Your task to perform on an android device: see tabs open on other devices in the chrome app Image 0: 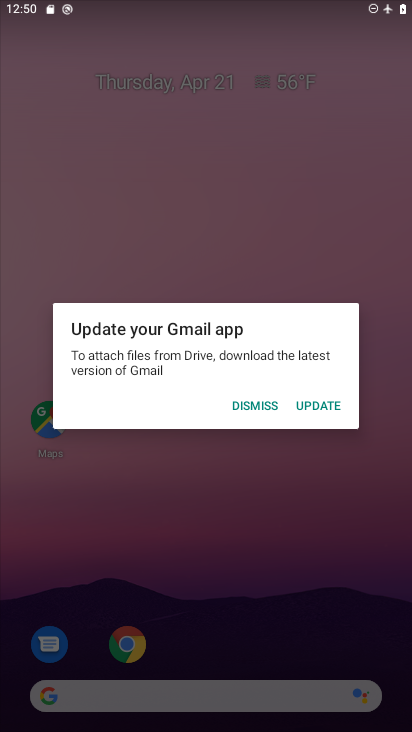
Step 0: press home button
Your task to perform on an android device: see tabs open on other devices in the chrome app Image 1: 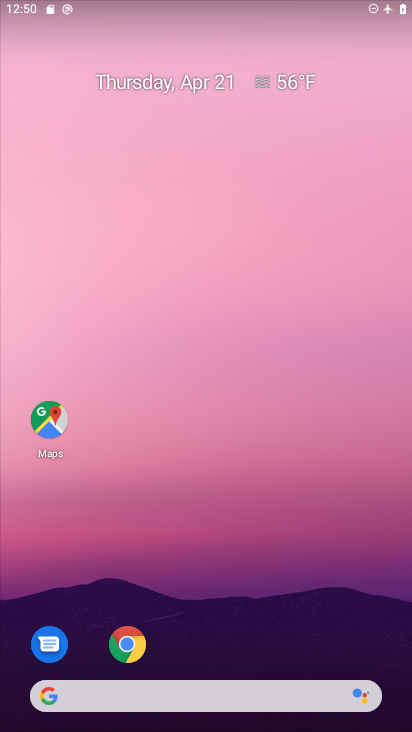
Step 1: click (129, 648)
Your task to perform on an android device: see tabs open on other devices in the chrome app Image 2: 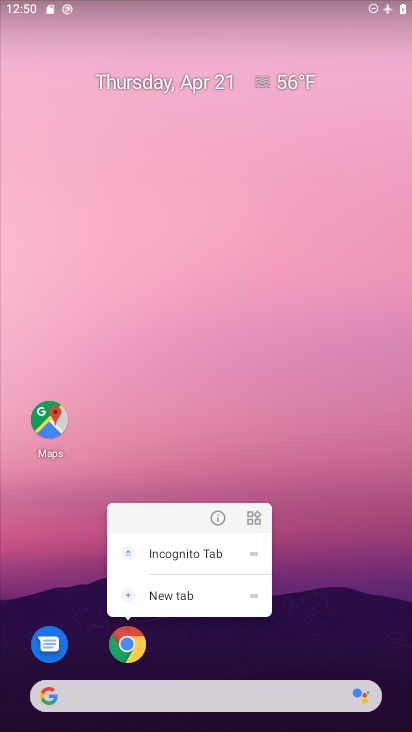
Step 2: click (217, 525)
Your task to perform on an android device: see tabs open on other devices in the chrome app Image 3: 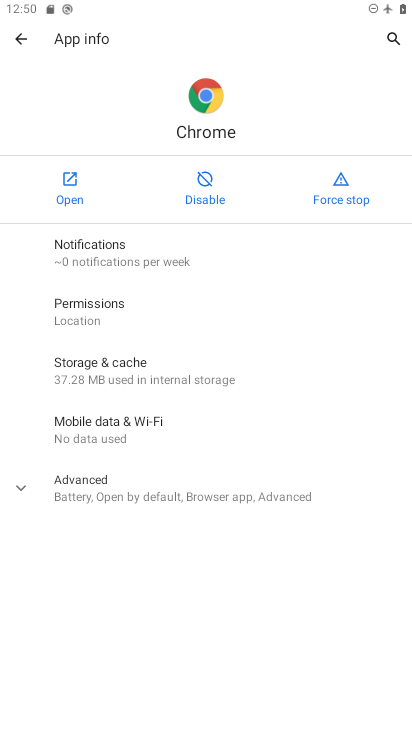
Step 3: click (80, 179)
Your task to perform on an android device: see tabs open on other devices in the chrome app Image 4: 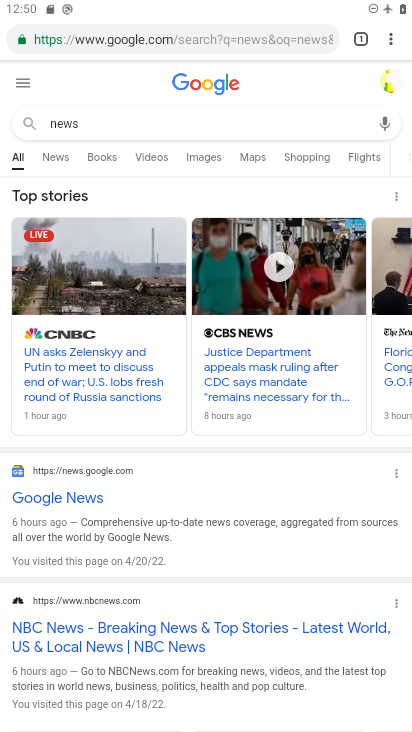
Step 4: click (393, 36)
Your task to perform on an android device: see tabs open on other devices in the chrome app Image 5: 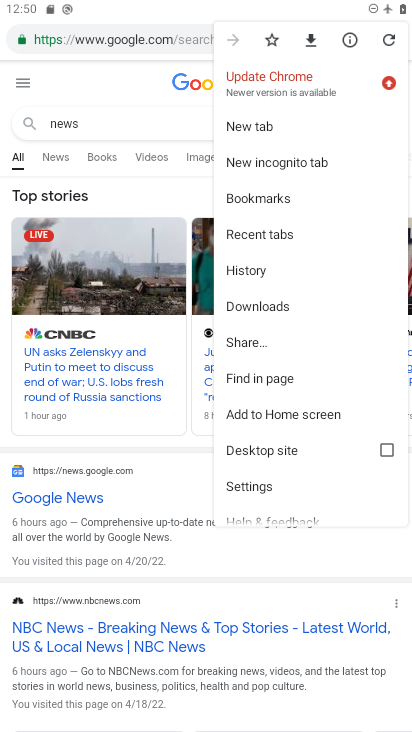
Step 5: click (85, 75)
Your task to perform on an android device: see tabs open on other devices in the chrome app Image 6: 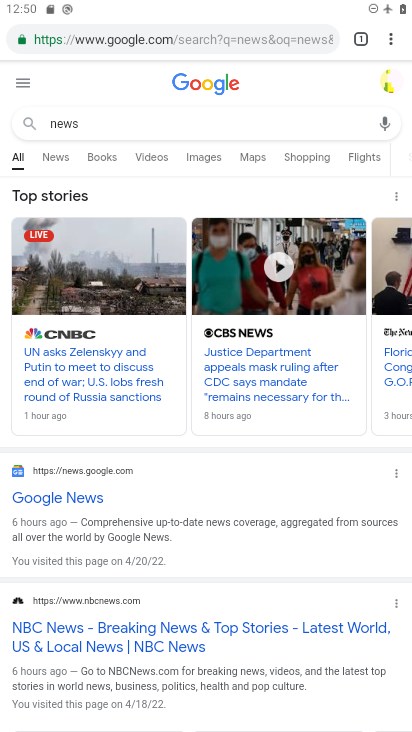
Step 6: click (354, 38)
Your task to perform on an android device: see tabs open on other devices in the chrome app Image 7: 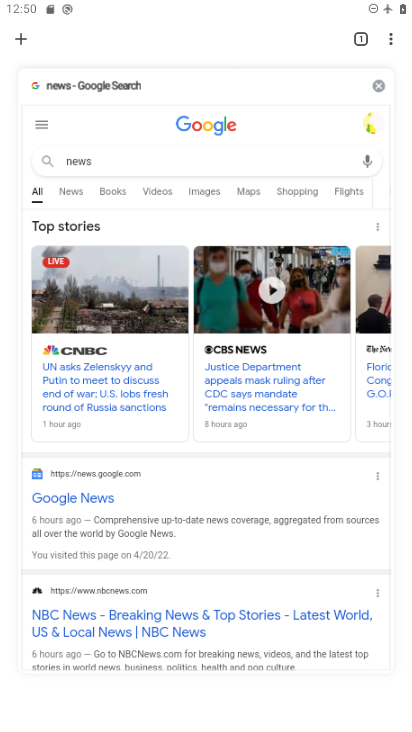
Step 7: task complete